Your task to perform on an android device: toggle sleep mode Image 0: 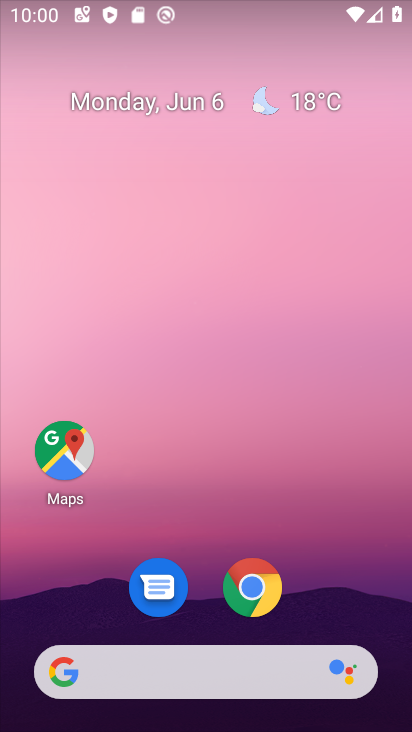
Step 0: drag from (297, 493) to (245, 0)
Your task to perform on an android device: toggle sleep mode Image 1: 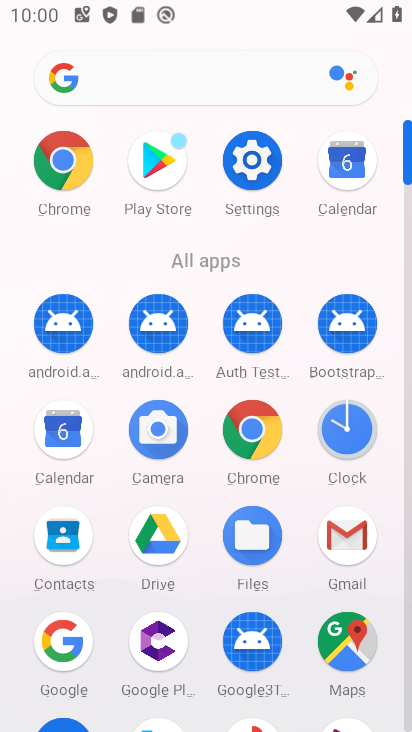
Step 1: click (247, 165)
Your task to perform on an android device: toggle sleep mode Image 2: 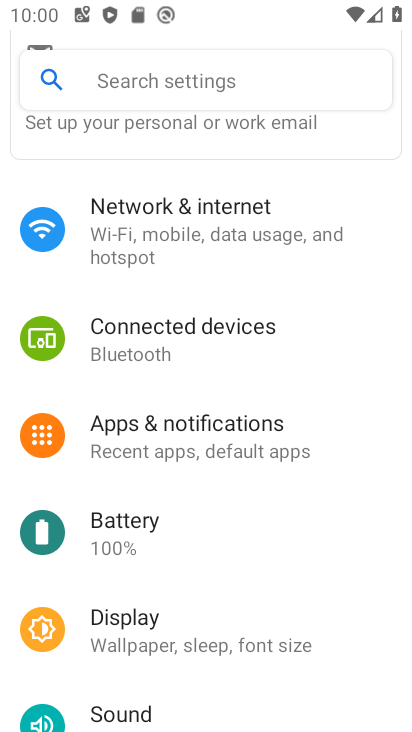
Step 2: click (203, 638)
Your task to perform on an android device: toggle sleep mode Image 3: 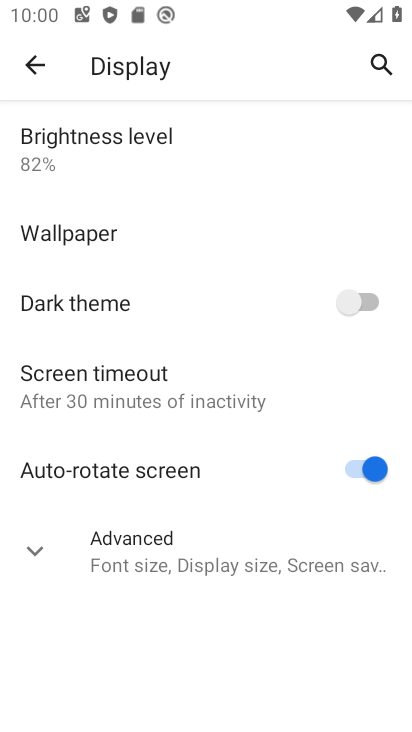
Step 3: click (203, 550)
Your task to perform on an android device: toggle sleep mode Image 4: 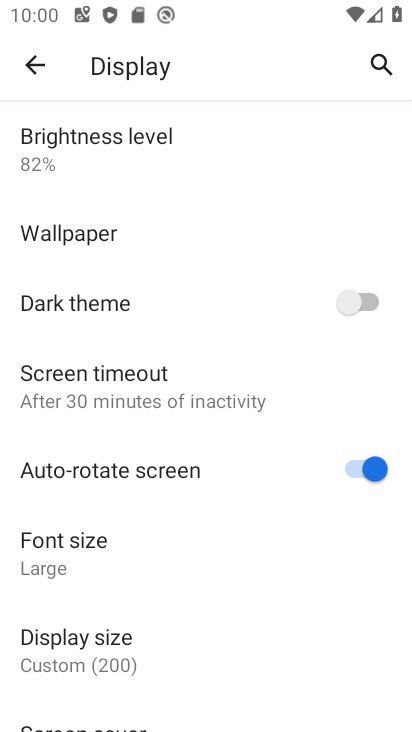
Step 4: task complete